Your task to perform on an android device: install app "Life360: Find Family & Friends" Image 0: 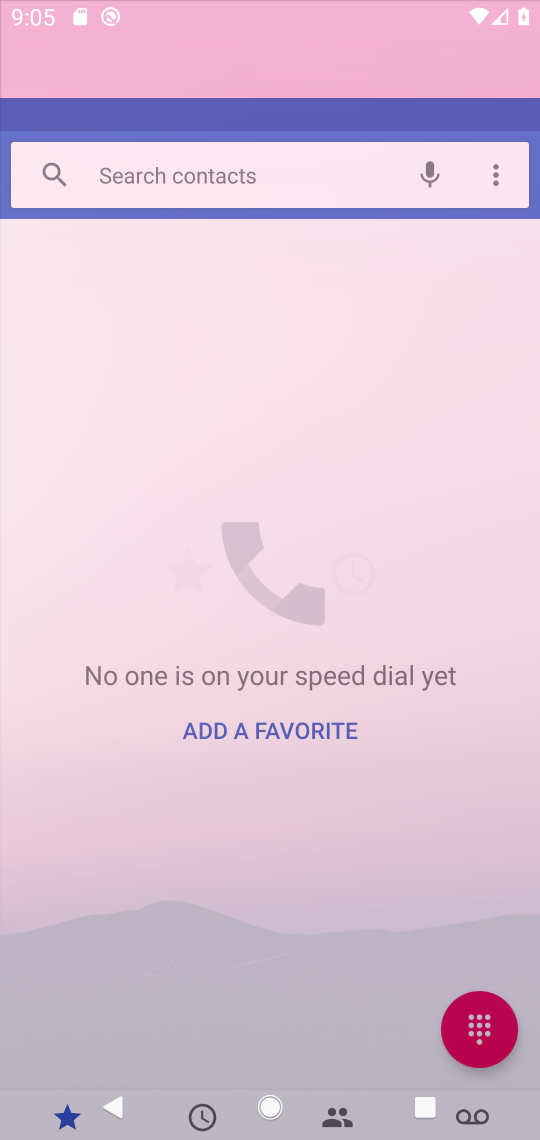
Step 0: press home button
Your task to perform on an android device: install app "Life360: Find Family & Friends" Image 1: 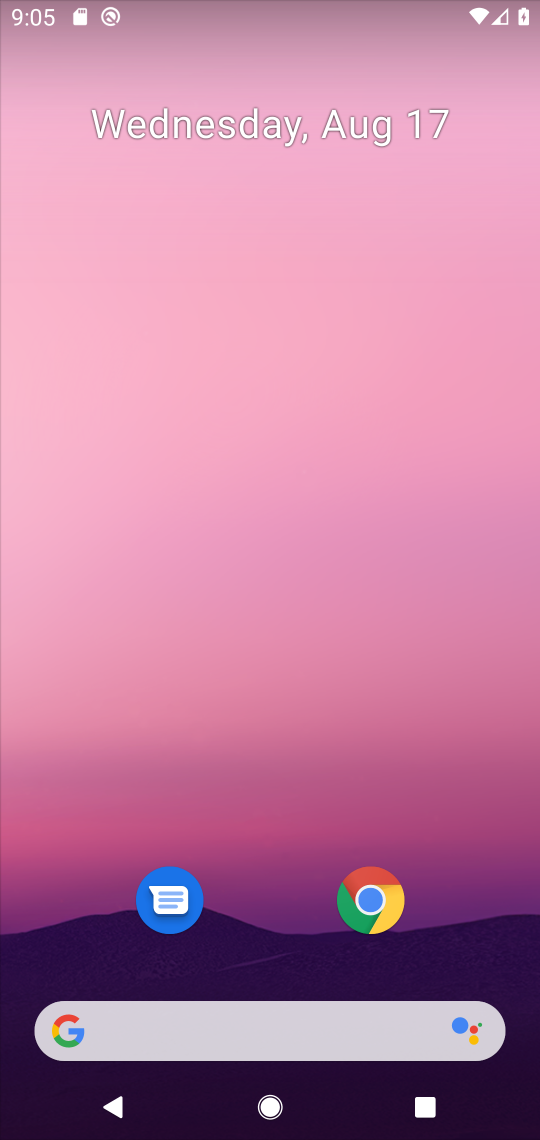
Step 1: drag from (349, 989) to (287, 392)
Your task to perform on an android device: install app "Life360: Find Family & Friends" Image 2: 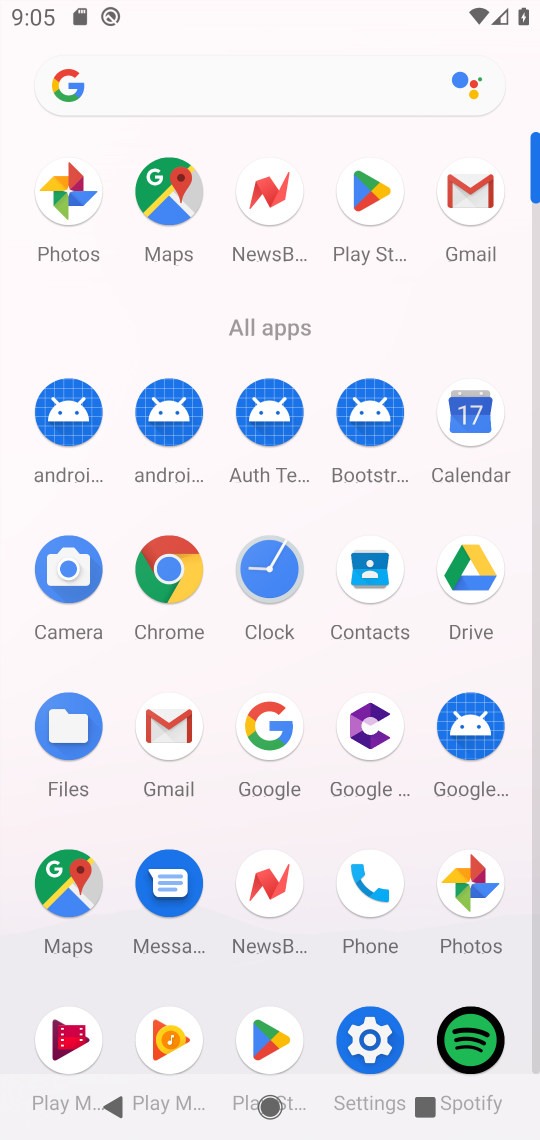
Step 2: click (365, 233)
Your task to perform on an android device: install app "Life360: Find Family & Friends" Image 3: 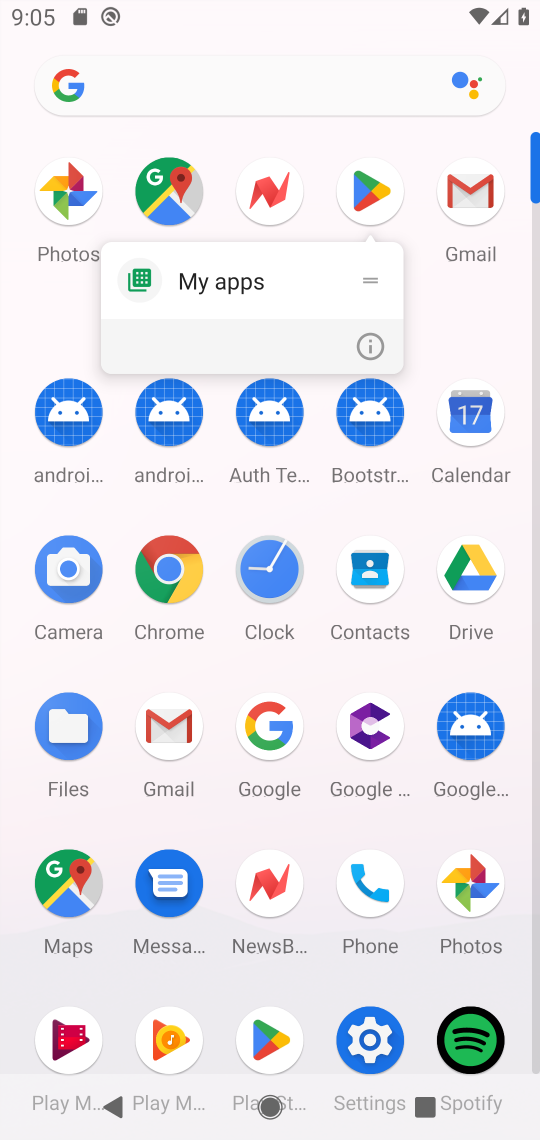
Step 3: click (374, 200)
Your task to perform on an android device: install app "Life360: Find Family & Friends" Image 4: 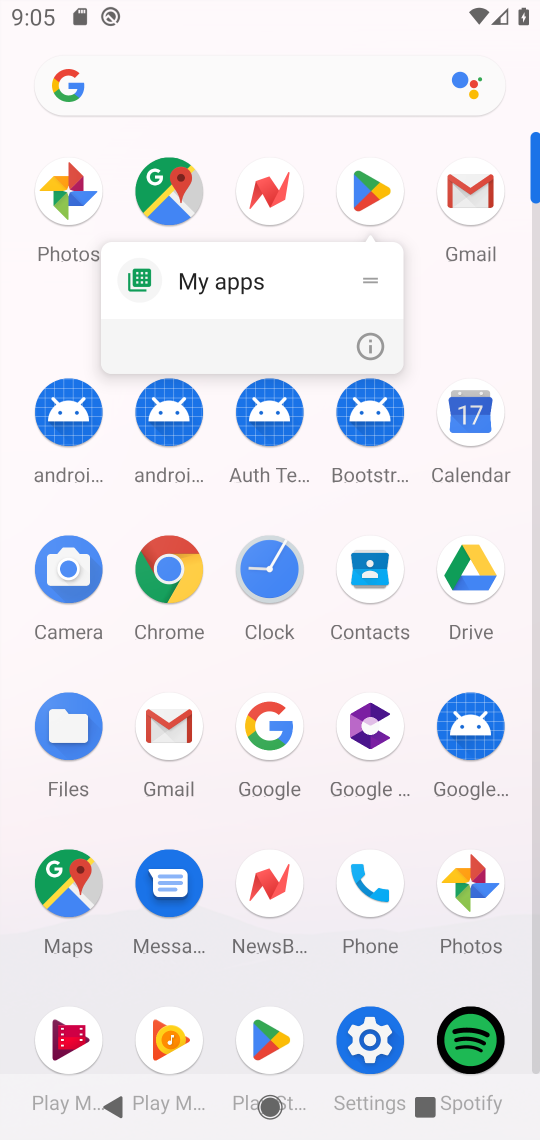
Step 4: click (371, 207)
Your task to perform on an android device: install app "Life360: Find Family & Friends" Image 5: 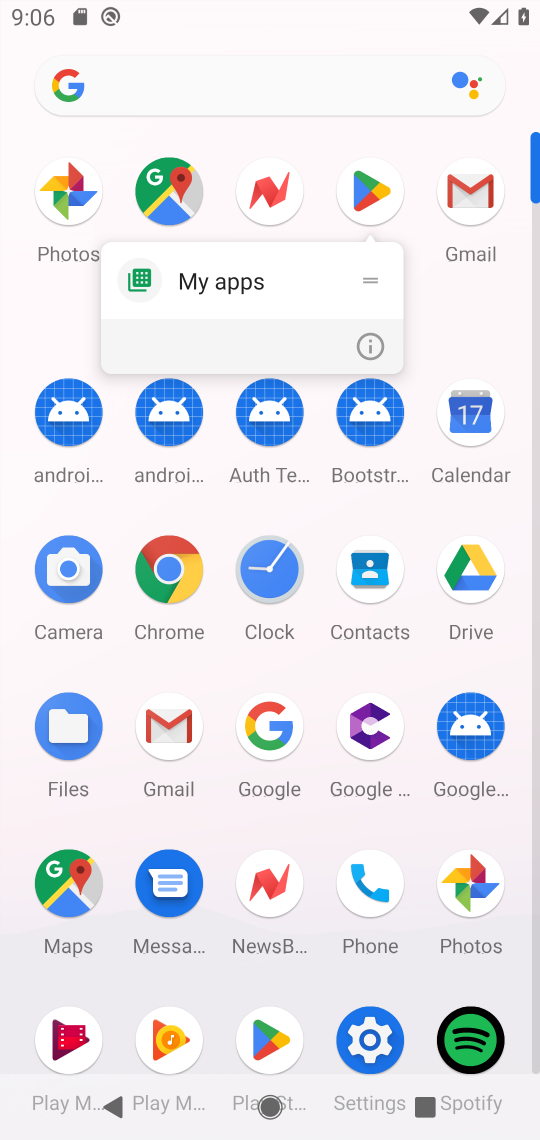
Step 5: click (360, 208)
Your task to perform on an android device: install app "Life360: Find Family & Friends" Image 6: 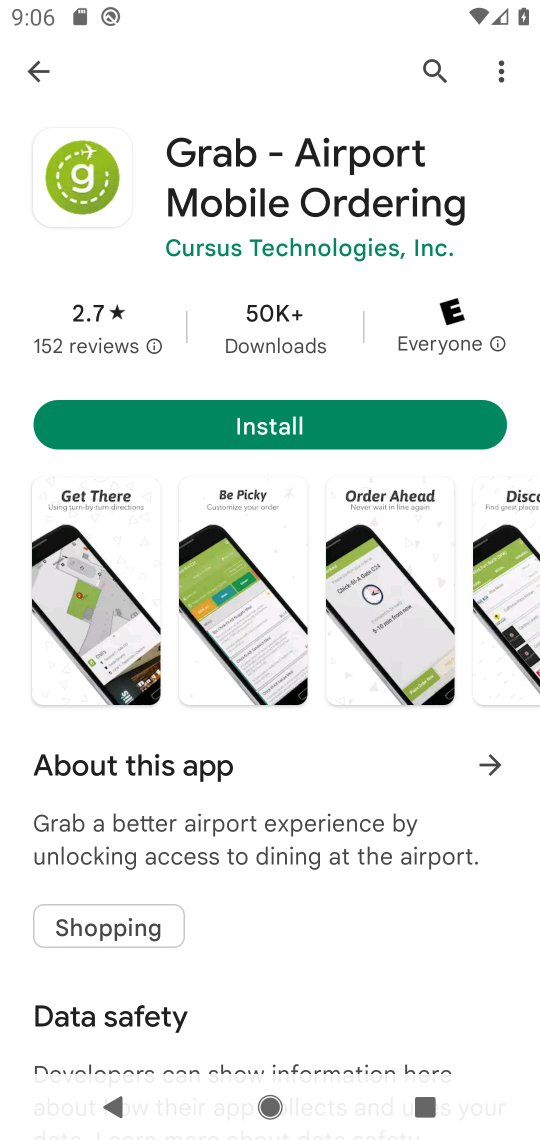
Step 6: click (36, 76)
Your task to perform on an android device: install app "Life360: Find Family & Friends" Image 7: 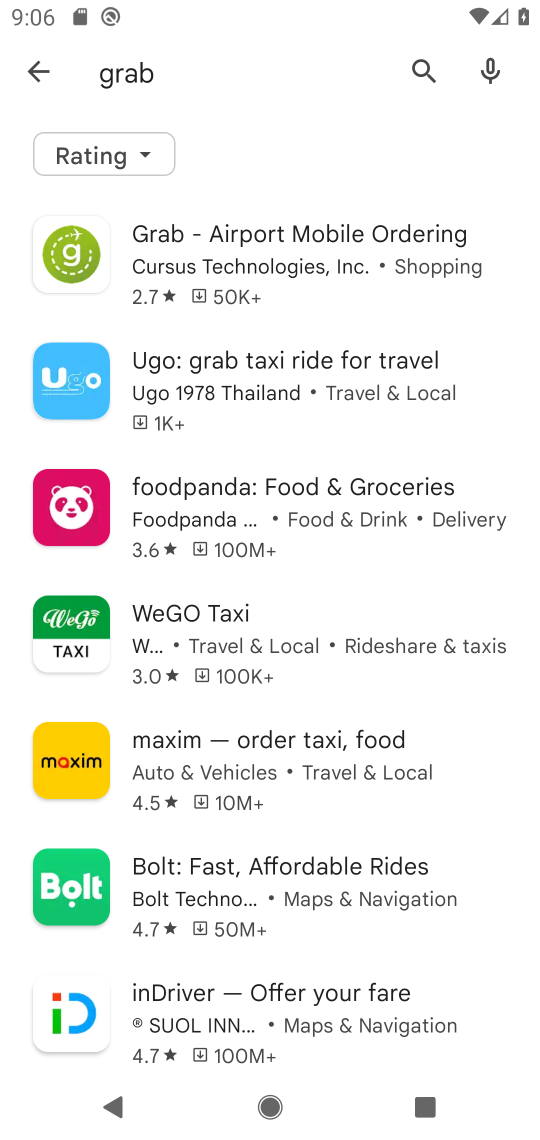
Step 7: click (37, 77)
Your task to perform on an android device: install app "Life360: Find Family & Friends" Image 8: 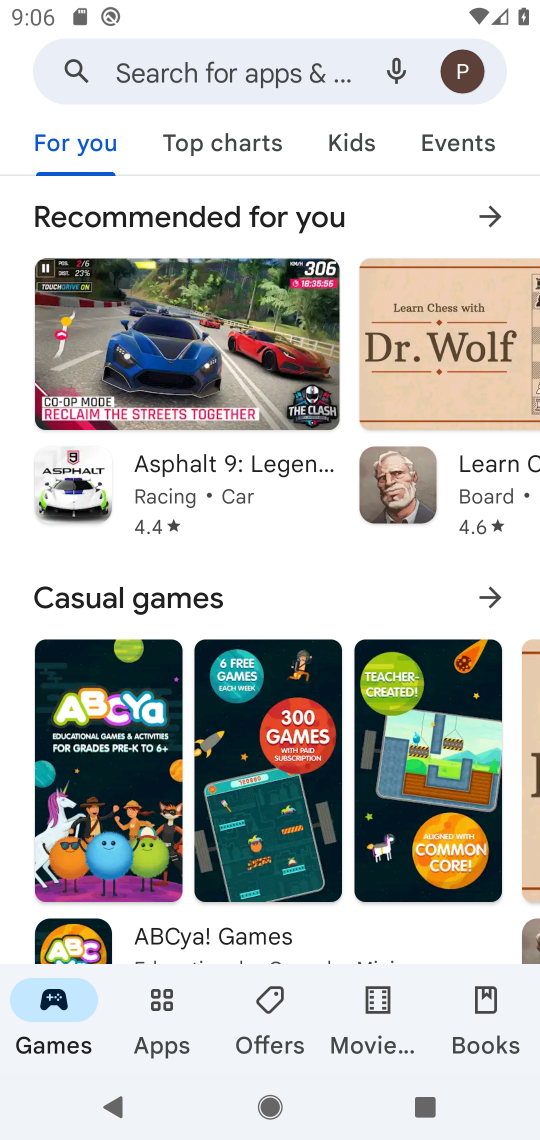
Step 8: click (241, 84)
Your task to perform on an android device: install app "Life360: Find Family & Friends" Image 9: 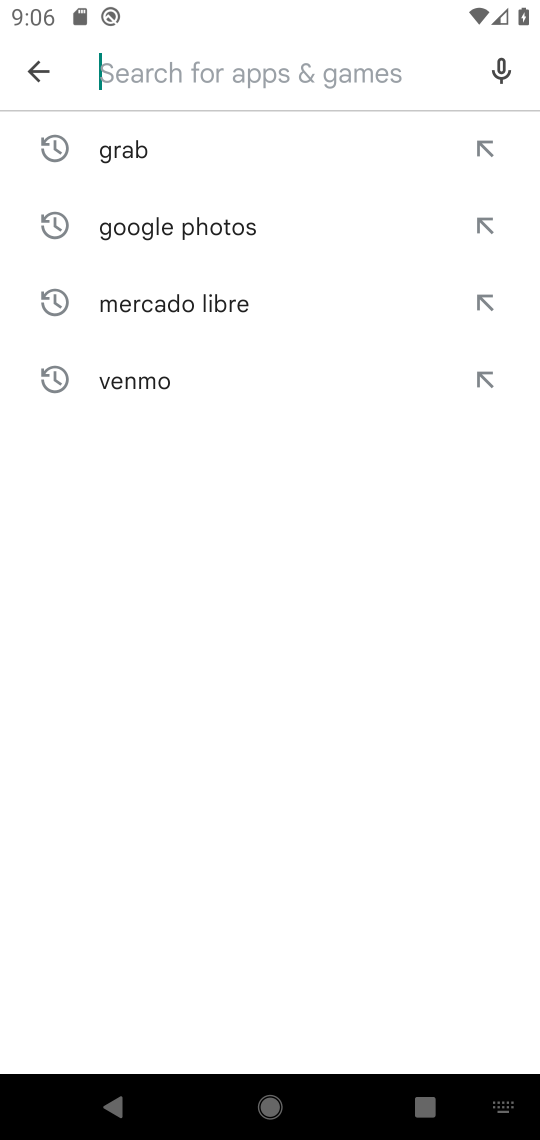
Step 9: type "Grab"
Your task to perform on an android device: install app "Life360: Find Family & Friends" Image 10: 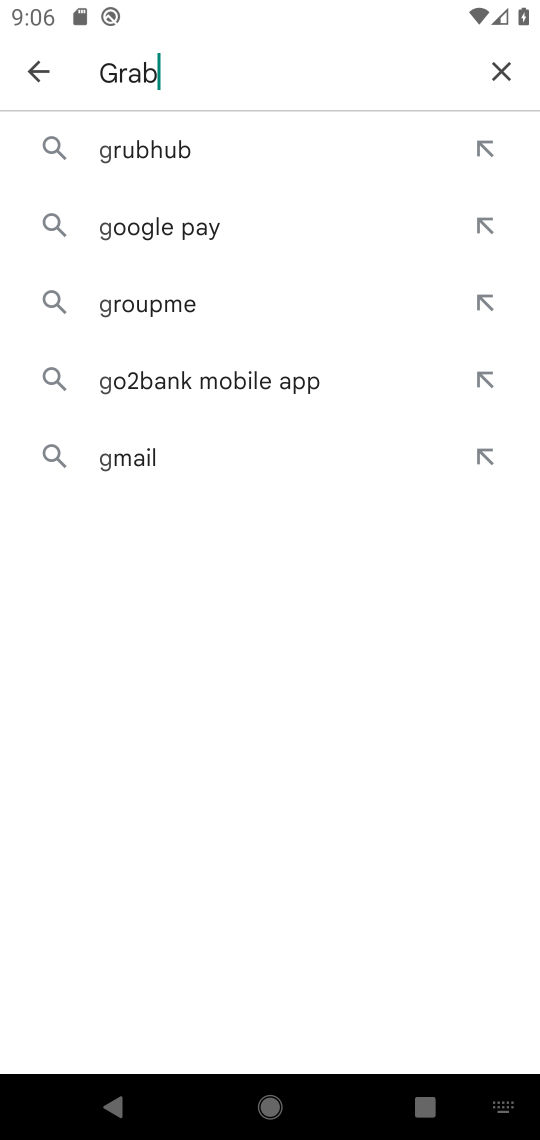
Step 10: type ""
Your task to perform on an android device: install app "Life360: Find Family & Friends" Image 11: 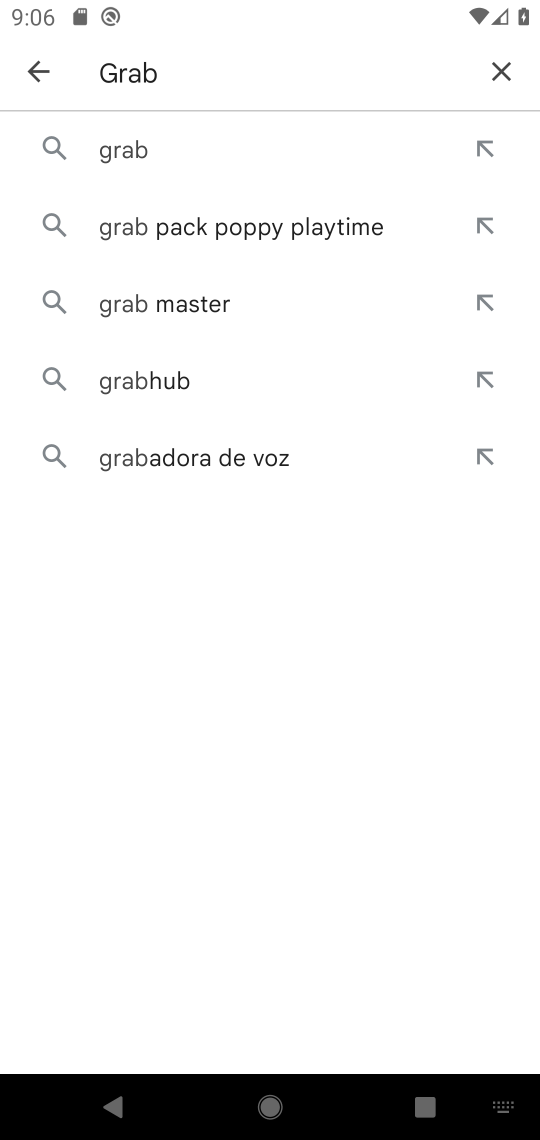
Step 11: click (506, 80)
Your task to perform on an android device: install app "Life360: Find Family & Friends" Image 12: 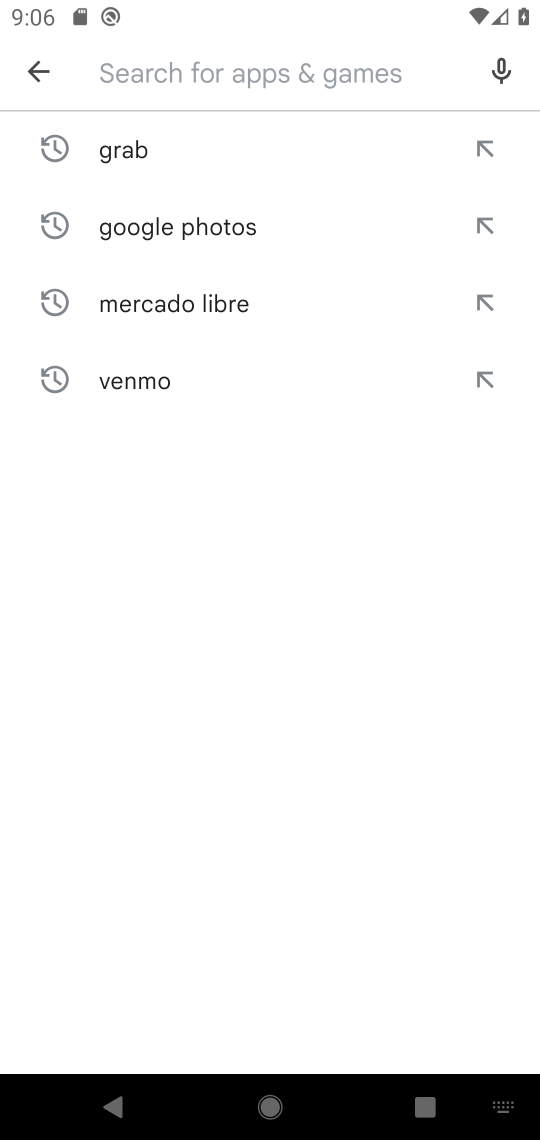
Step 12: type "Life360: Find Family & Friends"
Your task to perform on an android device: install app "Life360: Find Family & Friends" Image 13: 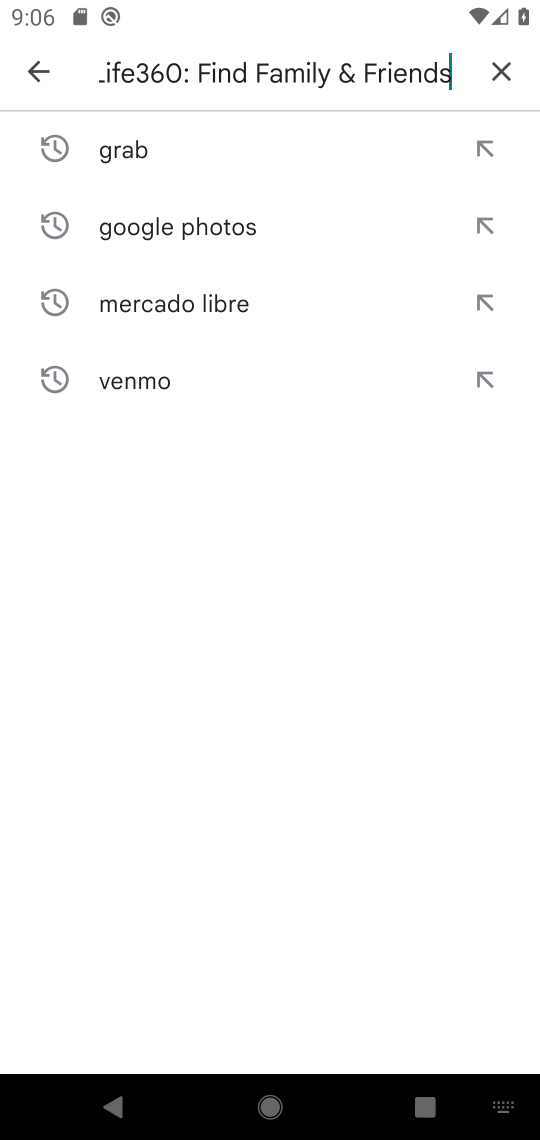
Step 13: type ""
Your task to perform on an android device: install app "Life360: Find Family & Friends" Image 14: 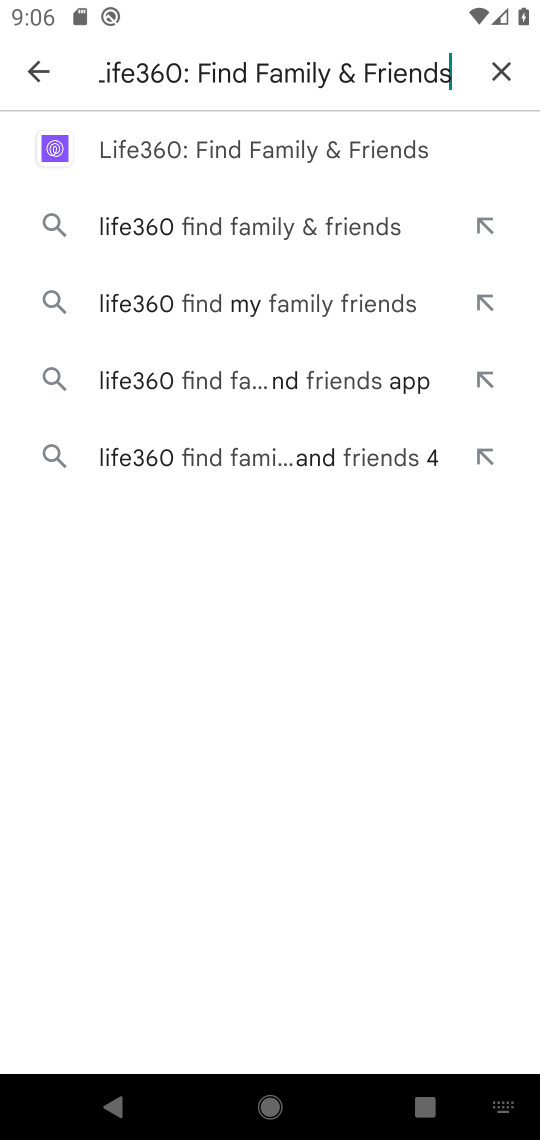
Step 14: click (288, 127)
Your task to perform on an android device: install app "Life360: Find Family & Friends" Image 15: 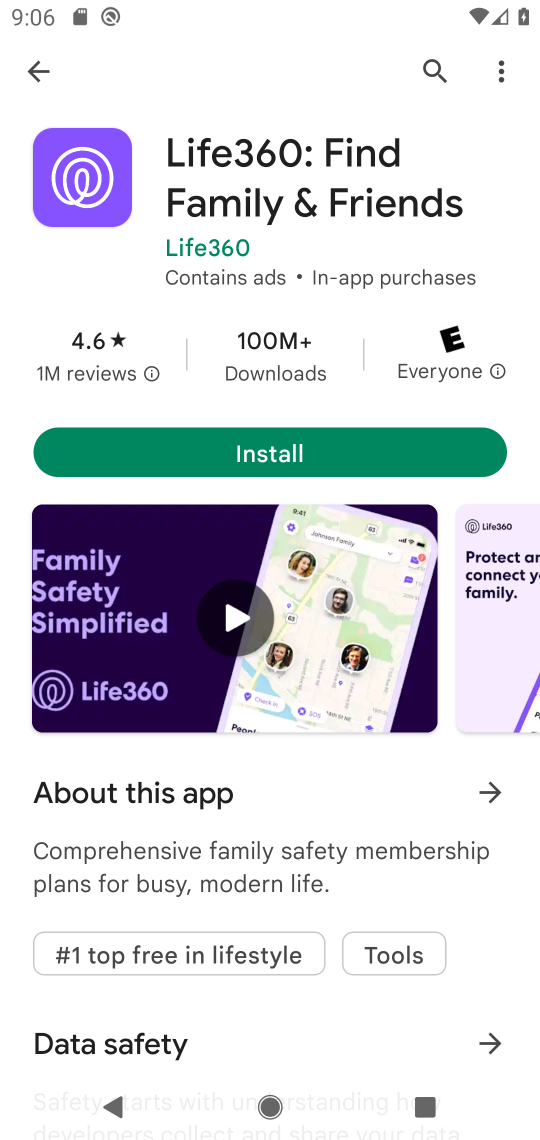
Step 15: click (250, 451)
Your task to perform on an android device: install app "Life360: Find Family & Friends" Image 16: 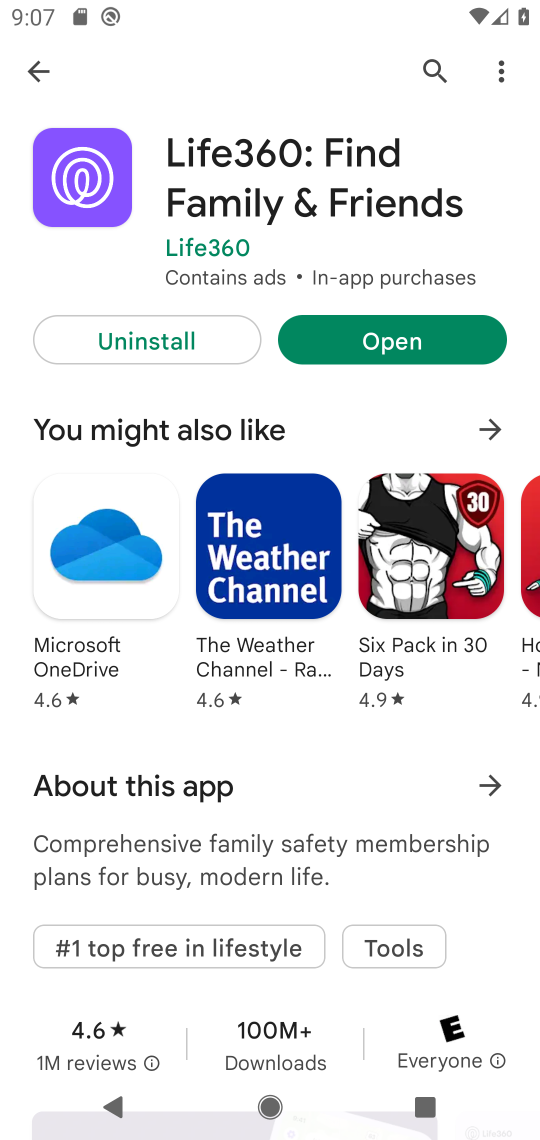
Step 16: click (470, 345)
Your task to perform on an android device: install app "Life360: Find Family & Friends" Image 17: 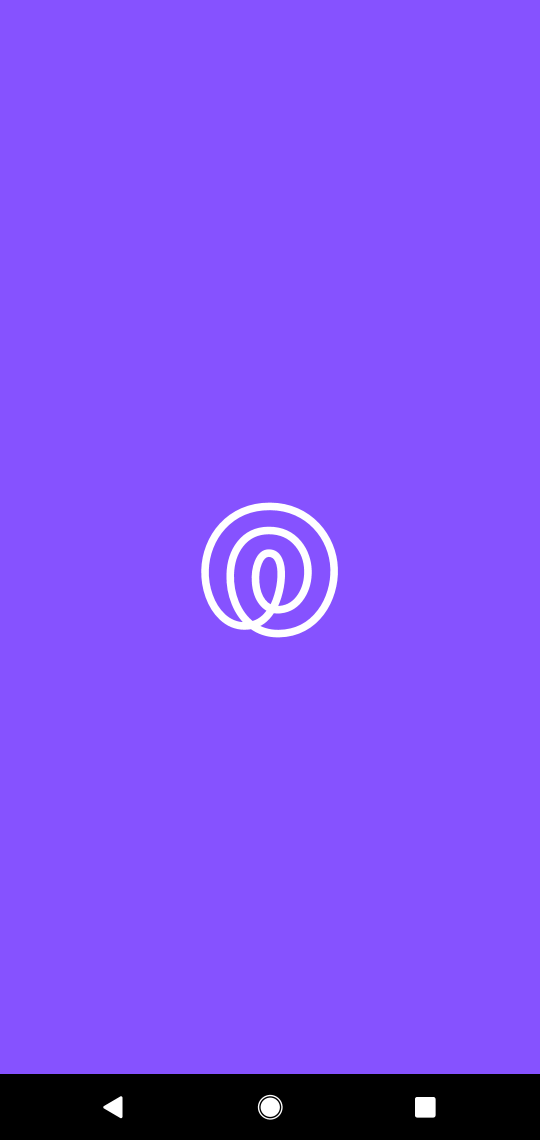
Step 17: task complete